Your task to perform on an android device: toggle wifi Image 0: 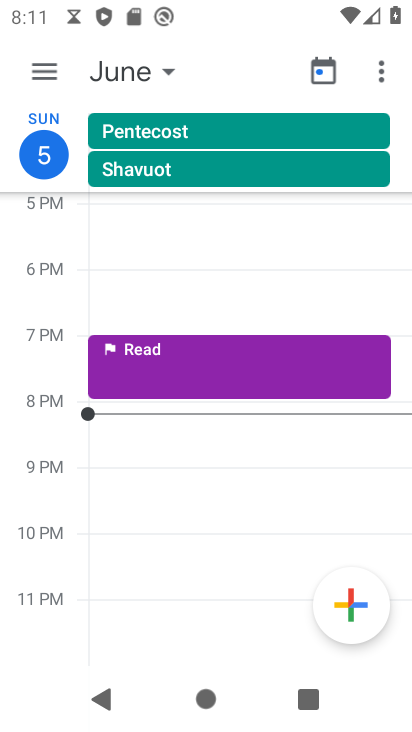
Step 0: press home button
Your task to perform on an android device: toggle wifi Image 1: 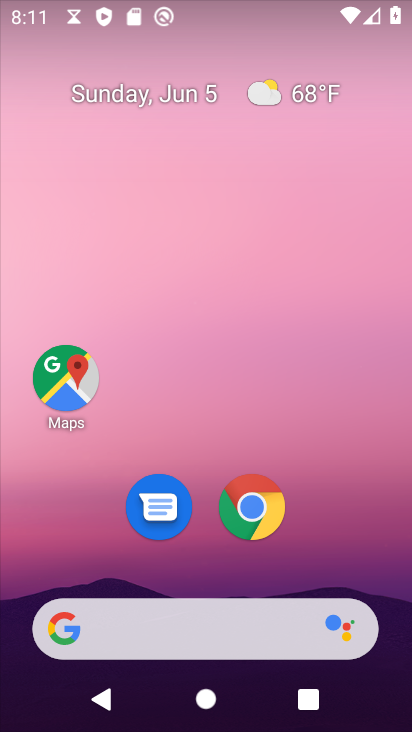
Step 1: drag from (215, 572) to (278, 136)
Your task to perform on an android device: toggle wifi Image 2: 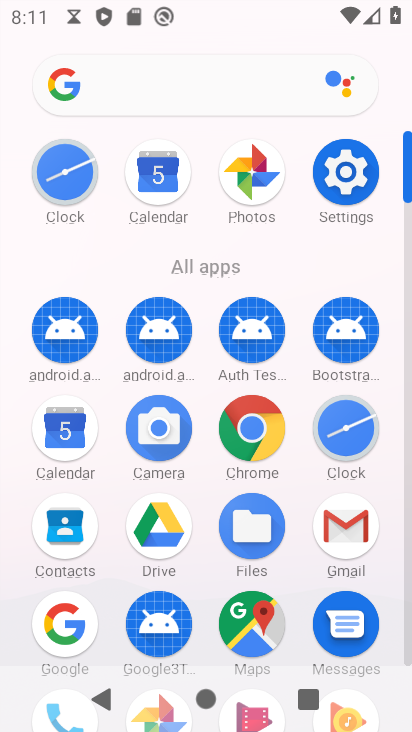
Step 2: click (368, 182)
Your task to perform on an android device: toggle wifi Image 3: 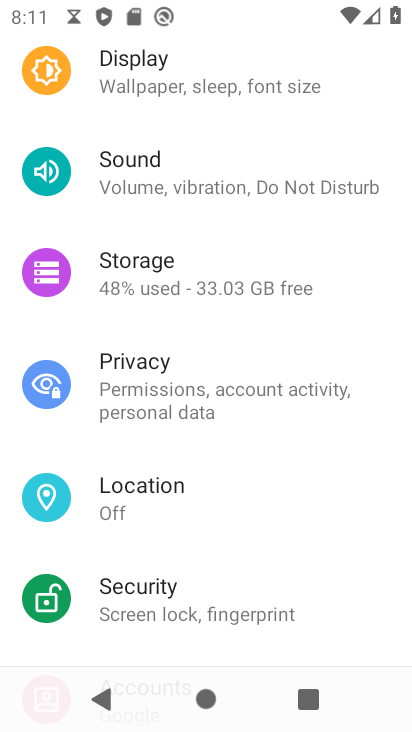
Step 3: drag from (173, 200) to (119, 638)
Your task to perform on an android device: toggle wifi Image 4: 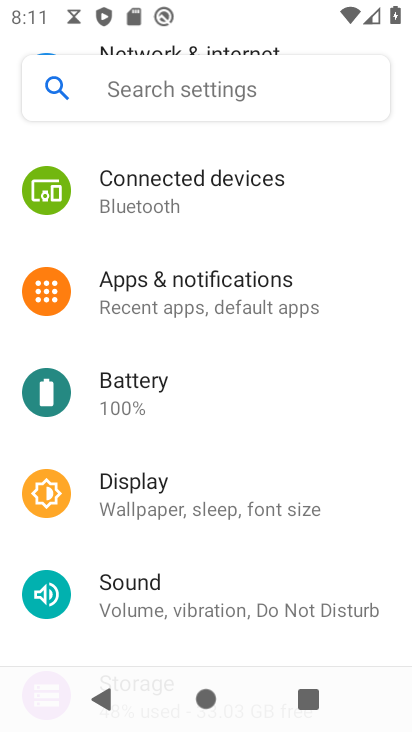
Step 4: drag from (203, 222) to (207, 552)
Your task to perform on an android device: toggle wifi Image 5: 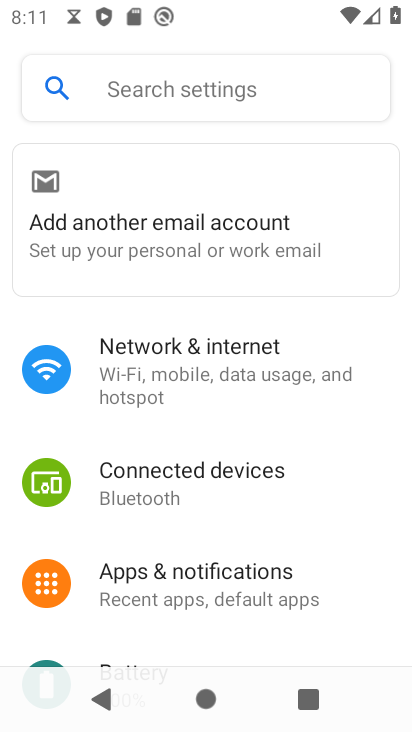
Step 5: click (192, 374)
Your task to perform on an android device: toggle wifi Image 6: 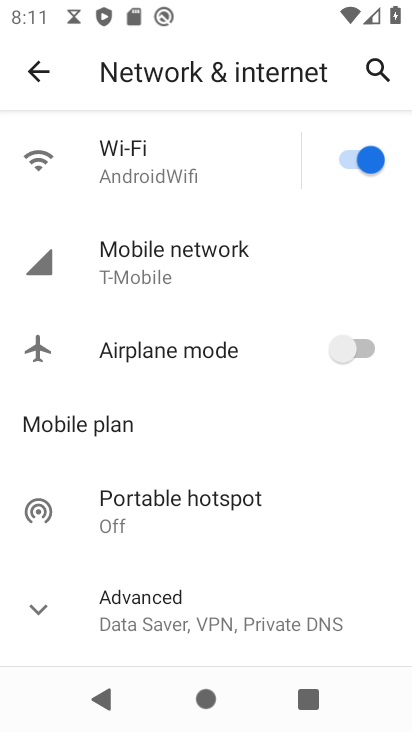
Step 6: click (337, 166)
Your task to perform on an android device: toggle wifi Image 7: 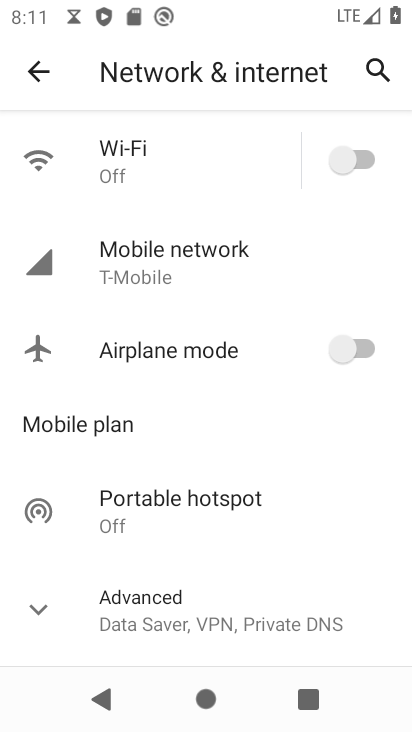
Step 7: task complete